Your task to perform on an android device: Go to Wikipedia Image 0: 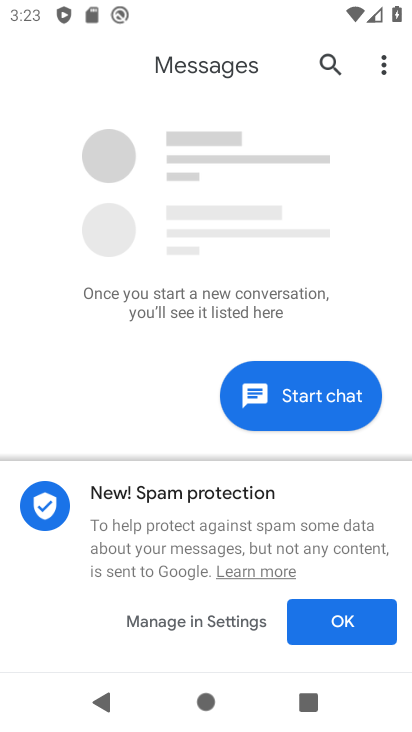
Step 0: press home button
Your task to perform on an android device: Go to Wikipedia Image 1: 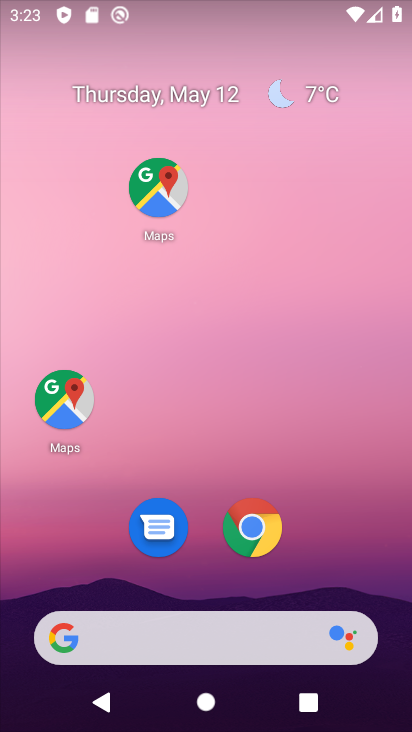
Step 1: click (256, 512)
Your task to perform on an android device: Go to Wikipedia Image 2: 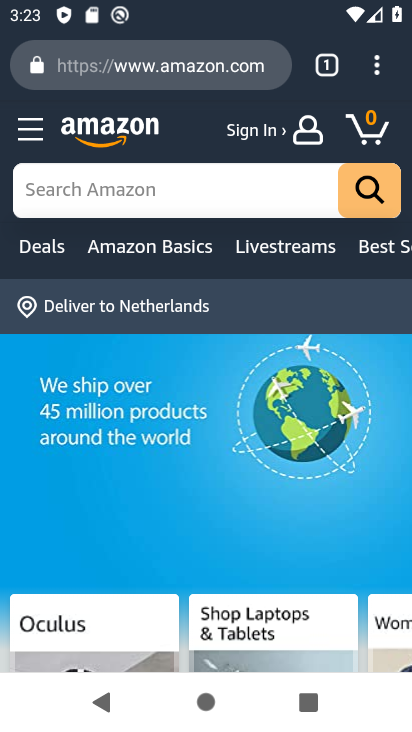
Step 2: click (328, 58)
Your task to perform on an android device: Go to Wikipedia Image 3: 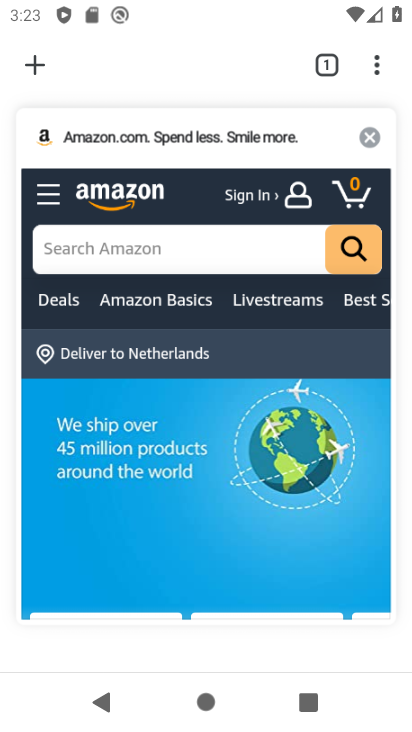
Step 3: click (33, 67)
Your task to perform on an android device: Go to Wikipedia Image 4: 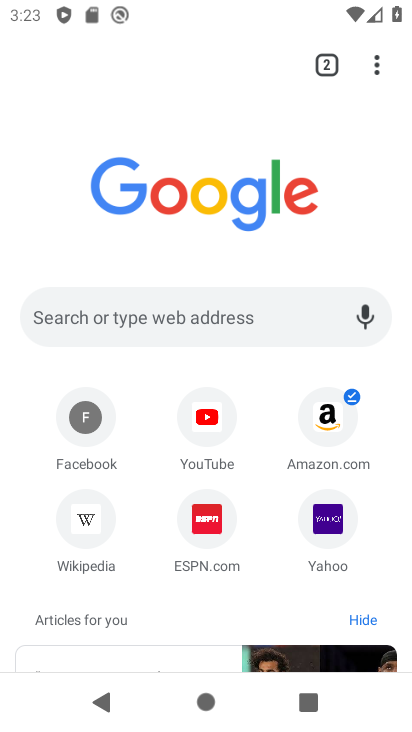
Step 4: task complete